Your task to perform on an android device: Search for pizza restaurants on Maps Image 0: 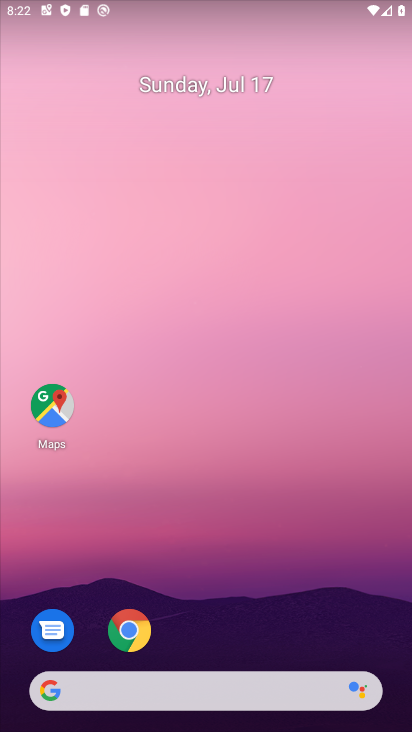
Step 0: click (59, 401)
Your task to perform on an android device: Search for pizza restaurants on Maps Image 1: 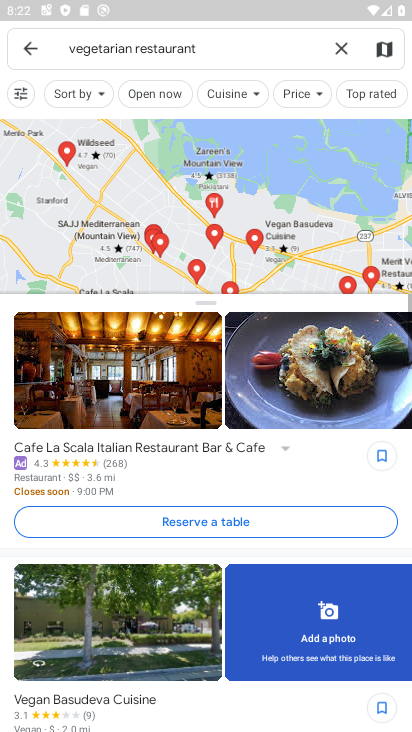
Step 1: click (339, 49)
Your task to perform on an android device: Search for pizza restaurants on Maps Image 2: 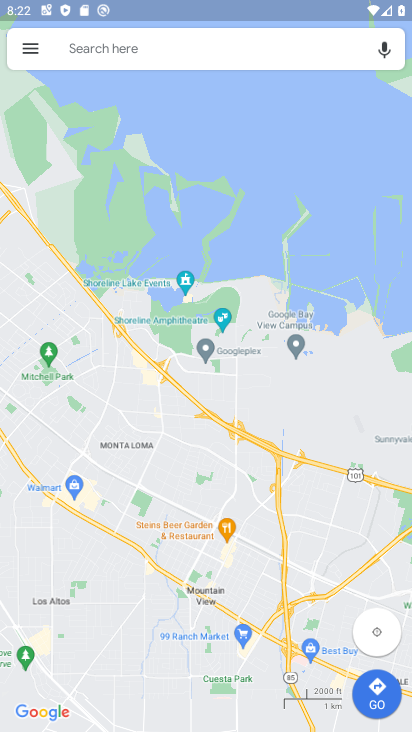
Step 2: click (248, 57)
Your task to perform on an android device: Search for pizza restaurants on Maps Image 3: 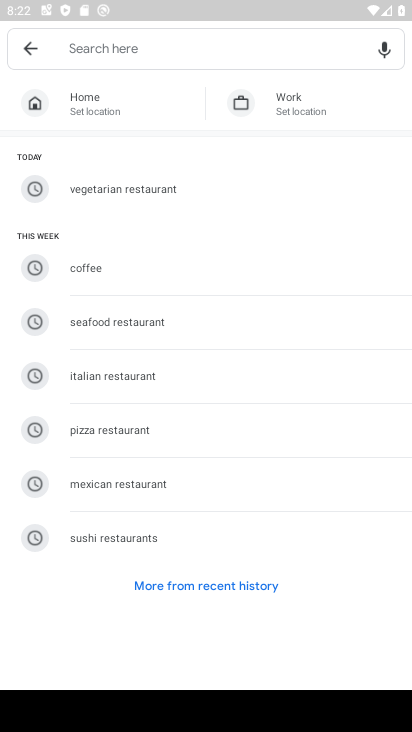
Step 3: click (113, 431)
Your task to perform on an android device: Search for pizza restaurants on Maps Image 4: 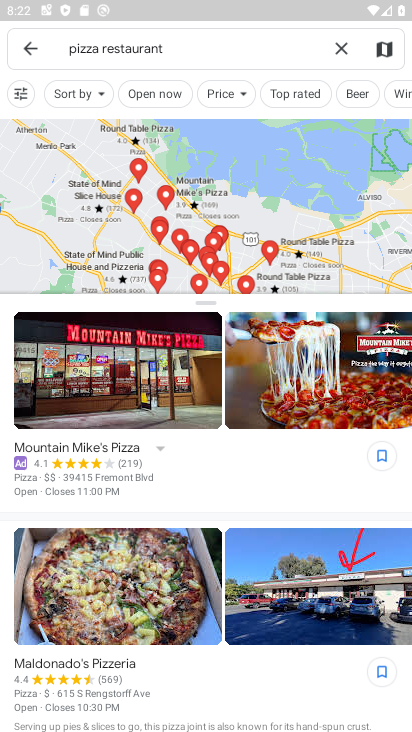
Step 4: task complete